Your task to perform on an android device: open app "NewsBreak: Local News & Alerts" Image 0: 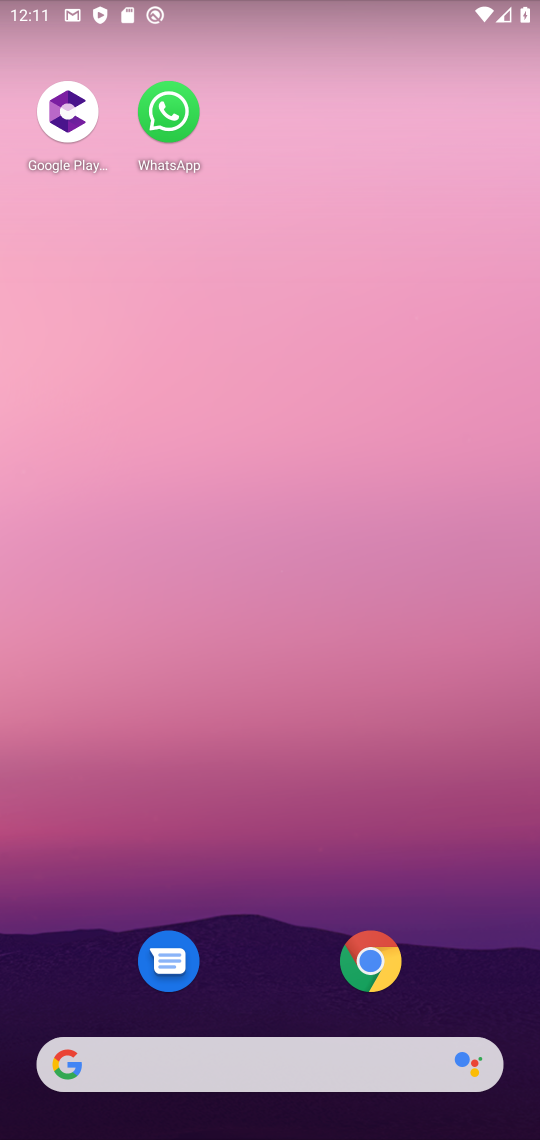
Step 0: drag from (250, 1011) to (341, 299)
Your task to perform on an android device: open app "NewsBreak: Local News & Alerts" Image 1: 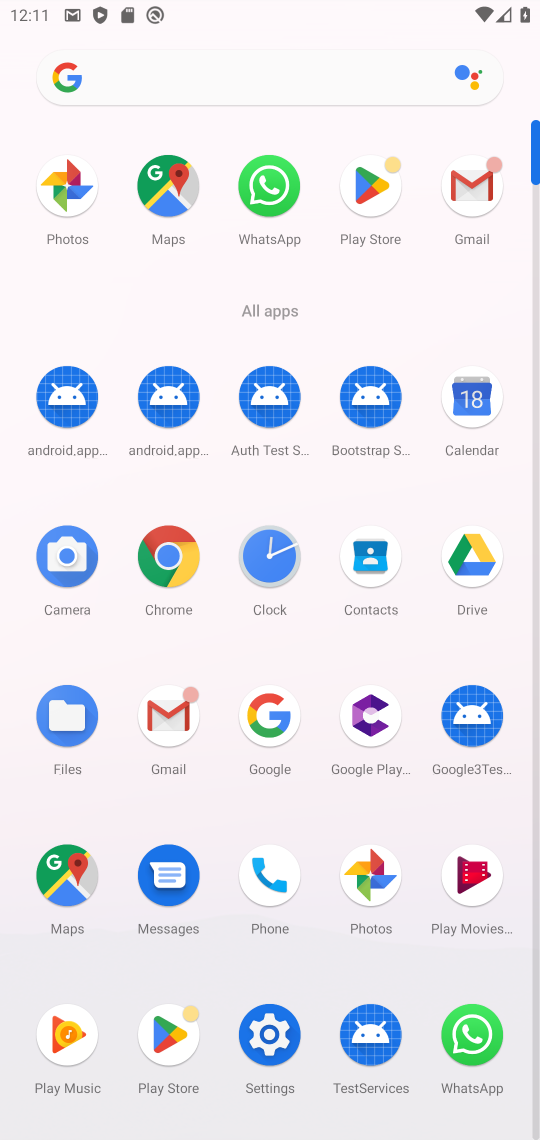
Step 1: click (384, 183)
Your task to perform on an android device: open app "NewsBreak: Local News & Alerts" Image 2: 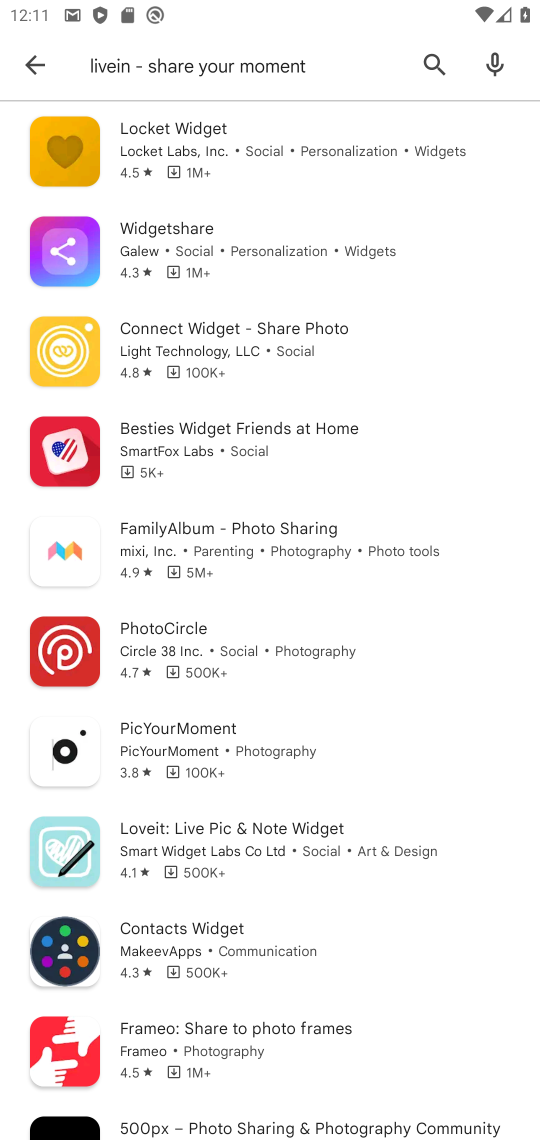
Step 2: click (26, 57)
Your task to perform on an android device: open app "NewsBreak: Local News & Alerts" Image 3: 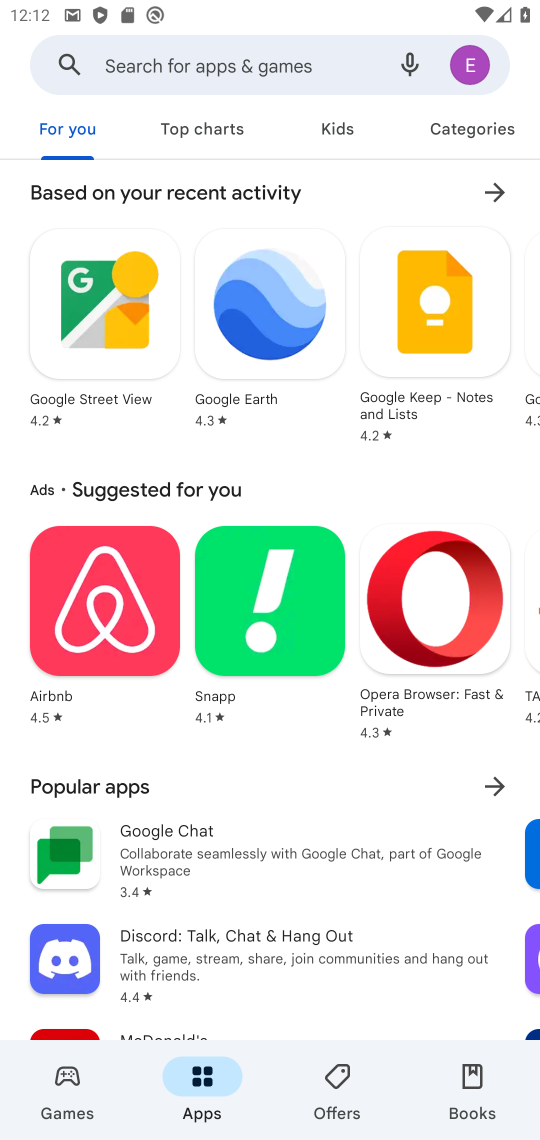
Step 3: click (271, 59)
Your task to perform on an android device: open app "NewsBreak: Local News & Alerts" Image 4: 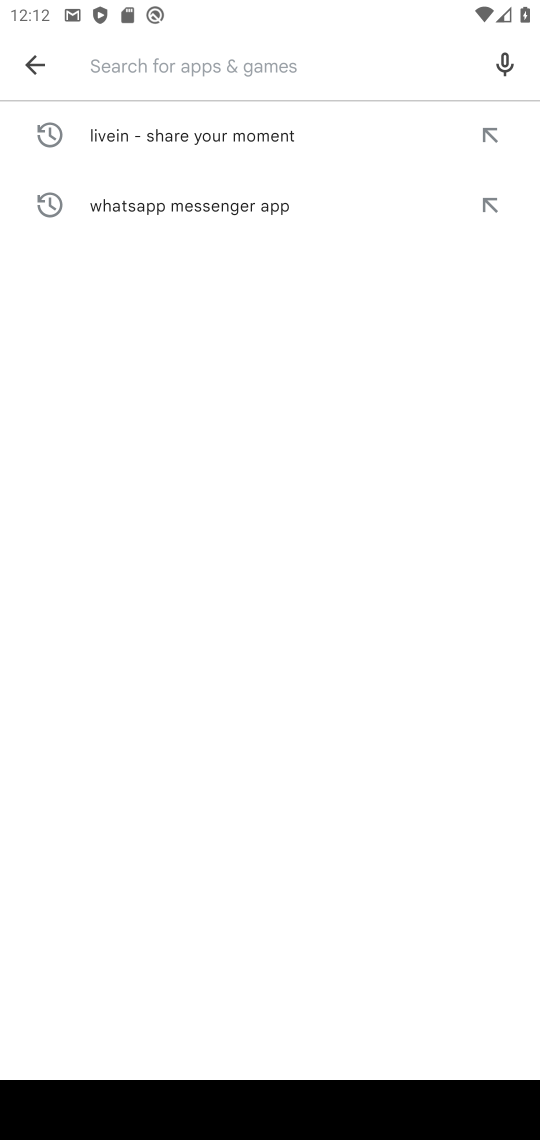
Step 4: type "NewsBreak: Local News & Alerts "
Your task to perform on an android device: open app "NewsBreak: Local News & Alerts" Image 5: 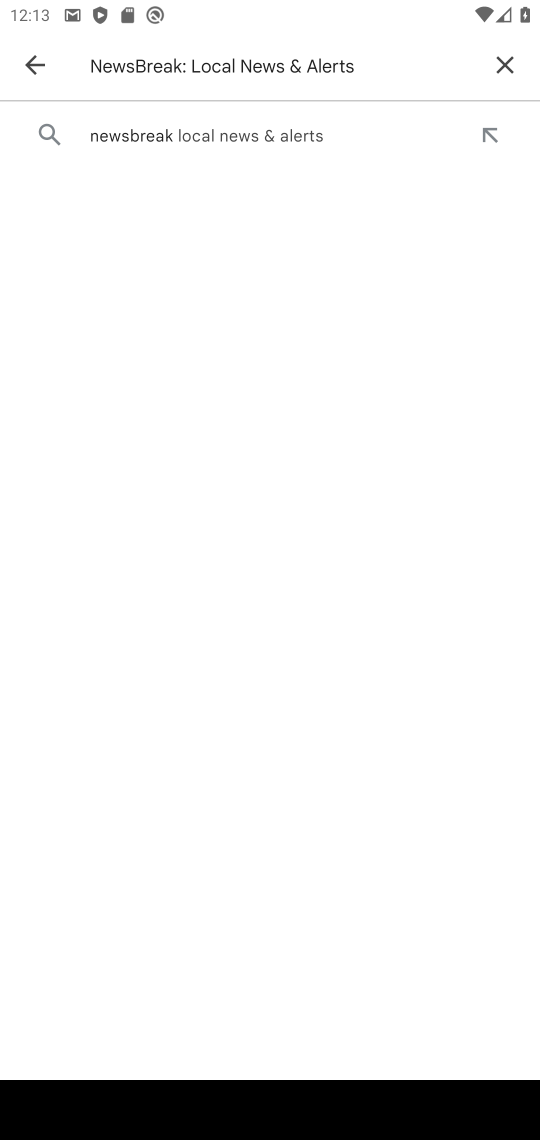
Step 5: click (303, 136)
Your task to perform on an android device: open app "NewsBreak: Local News & Alerts" Image 6: 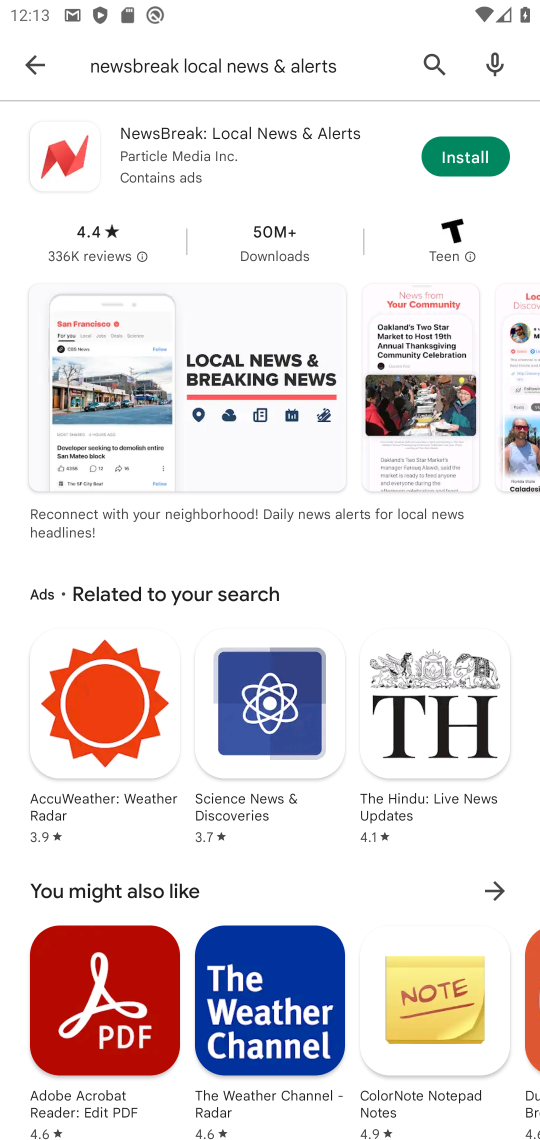
Step 6: click (455, 140)
Your task to perform on an android device: open app "NewsBreak: Local News & Alerts" Image 7: 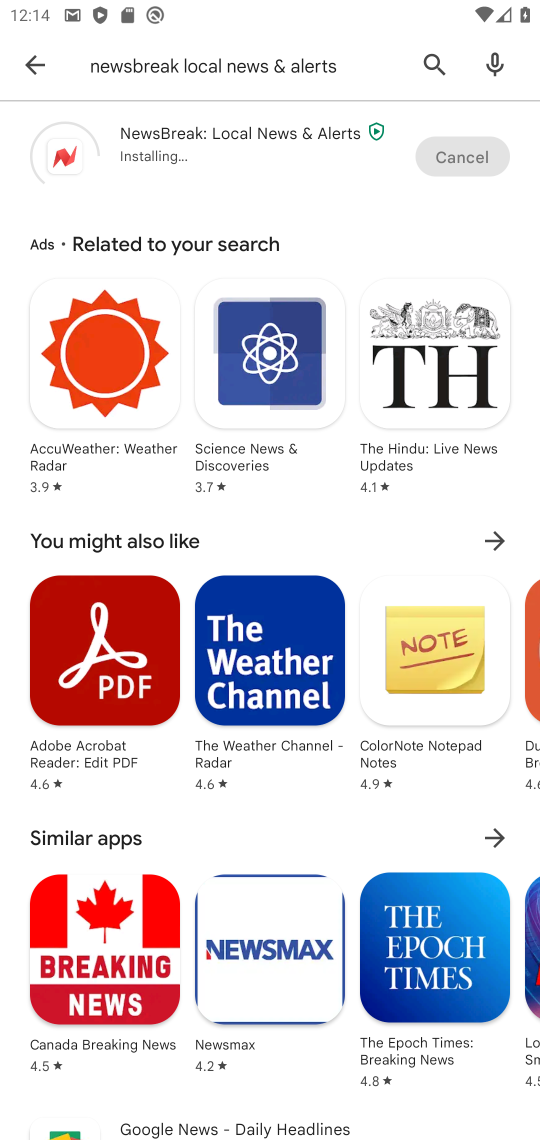
Step 7: task complete